Your task to perform on an android device: turn on the 12-hour format for clock Image 0: 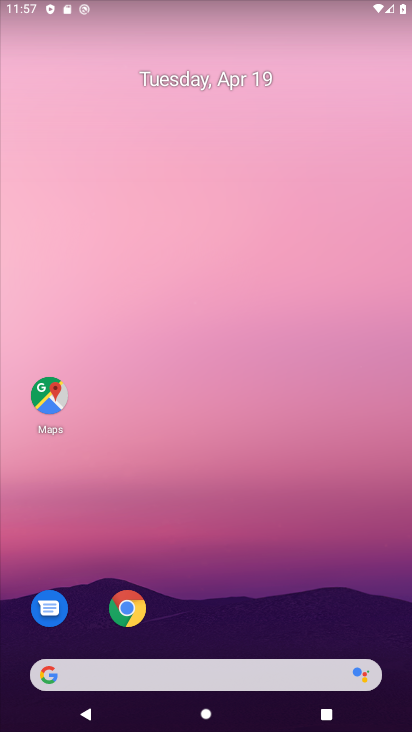
Step 0: drag from (277, 521) to (275, 62)
Your task to perform on an android device: turn on the 12-hour format for clock Image 1: 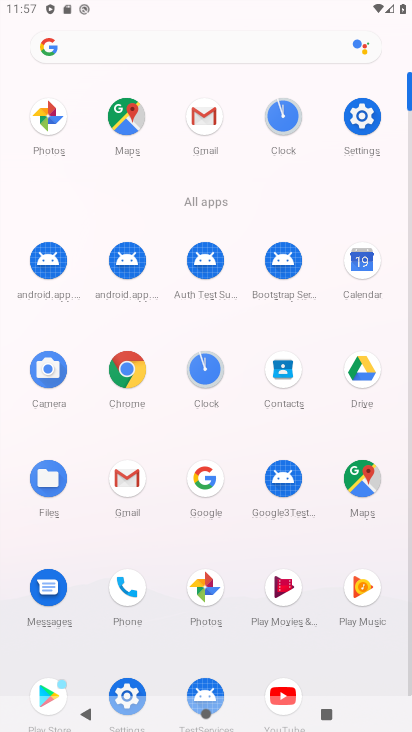
Step 1: click (280, 123)
Your task to perform on an android device: turn on the 12-hour format for clock Image 2: 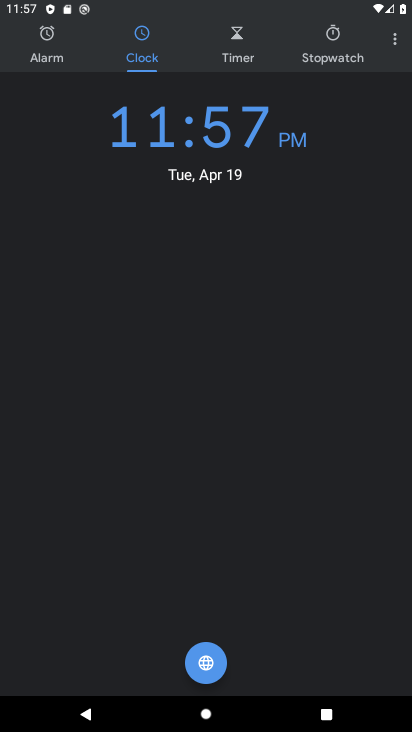
Step 2: click (392, 40)
Your task to perform on an android device: turn on the 12-hour format for clock Image 3: 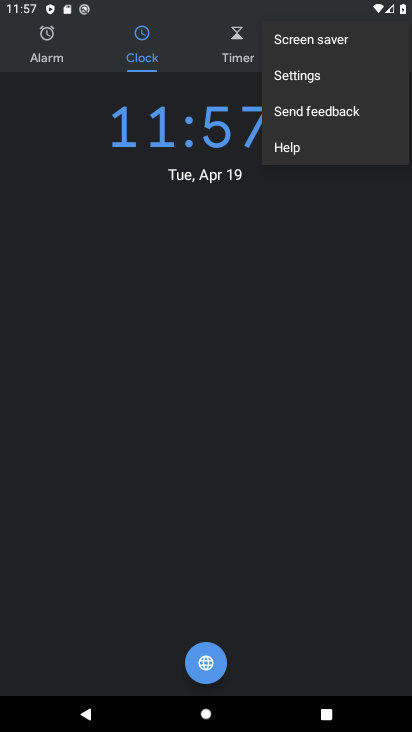
Step 3: click (326, 77)
Your task to perform on an android device: turn on the 12-hour format for clock Image 4: 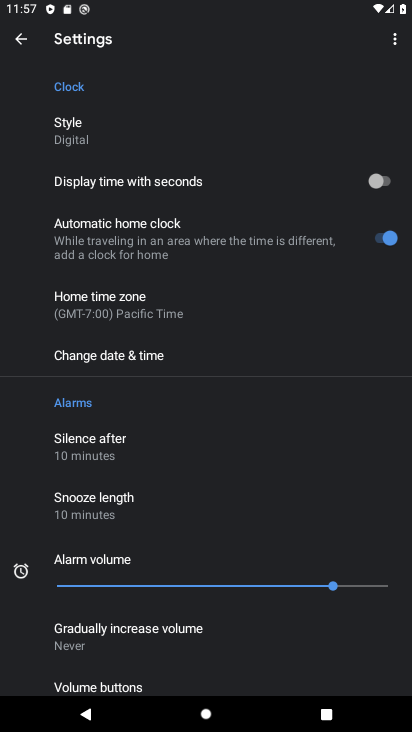
Step 4: click (122, 356)
Your task to perform on an android device: turn on the 12-hour format for clock Image 5: 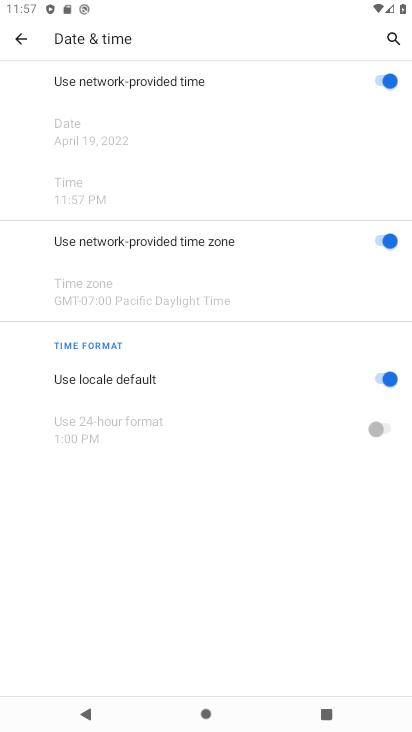
Step 5: task complete